Your task to perform on an android device: See recent photos Image 0: 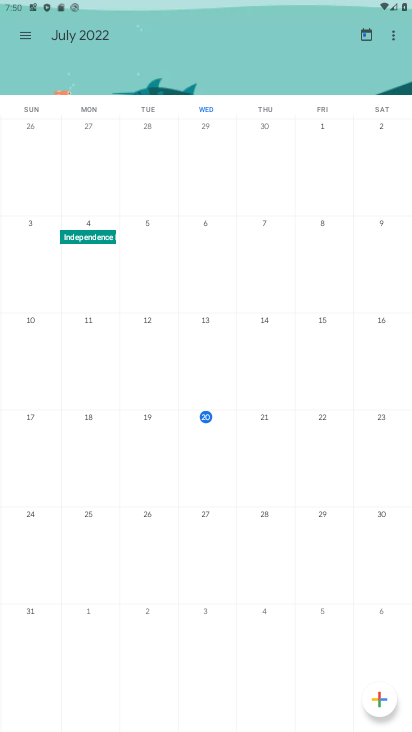
Step 0: press home button
Your task to perform on an android device: See recent photos Image 1: 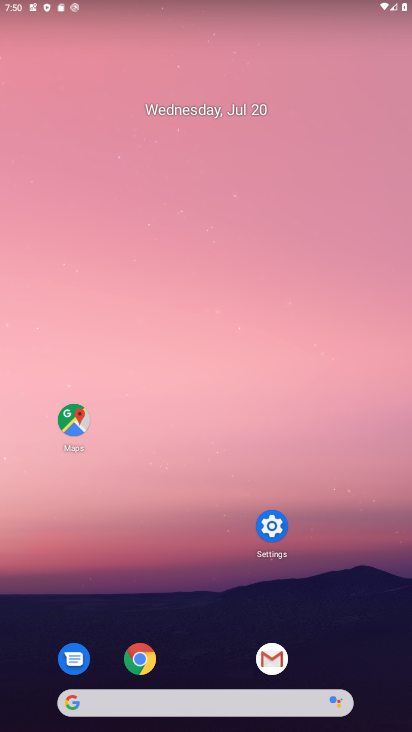
Step 1: drag from (279, 700) to (341, 190)
Your task to perform on an android device: See recent photos Image 2: 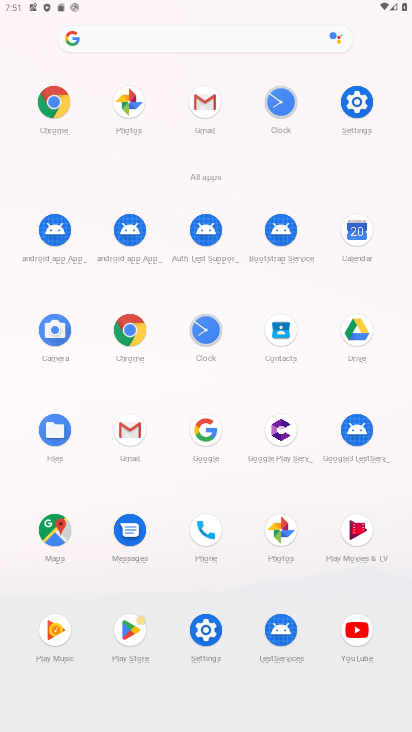
Step 2: click (280, 541)
Your task to perform on an android device: See recent photos Image 3: 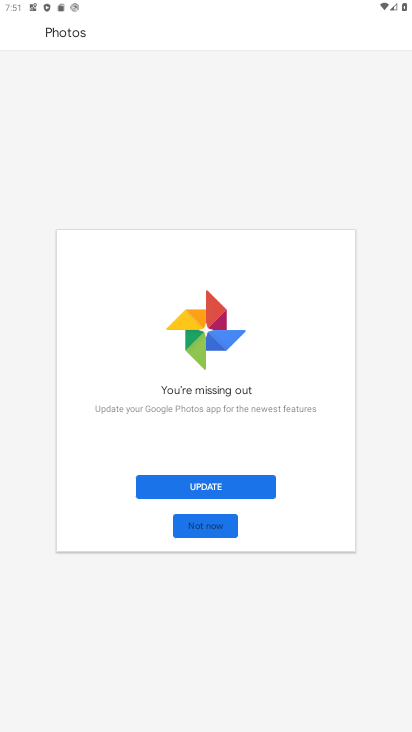
Step 3: click (200, 485)
Your task to perform on an android device: See recent photos Image 4: 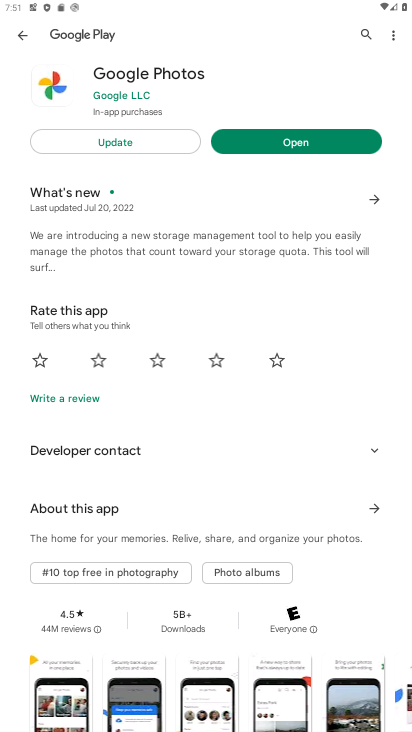
Step 4: click (129, 139)
Your task to perform on an android device: See recent photos Image 5: 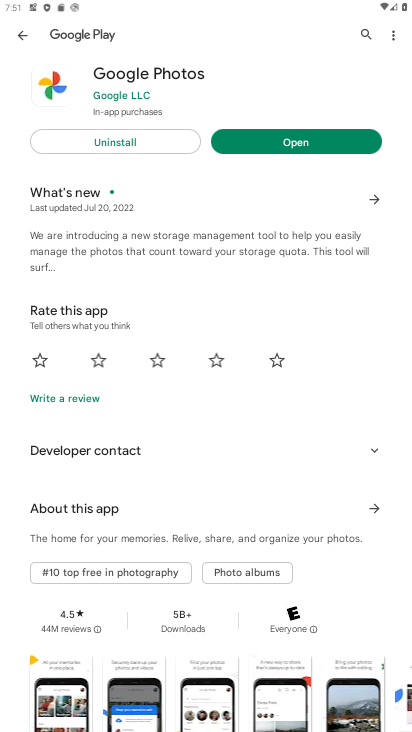
Step 5: click (254, 150)
Your task to perform on an android device: See recent photos Image 6: 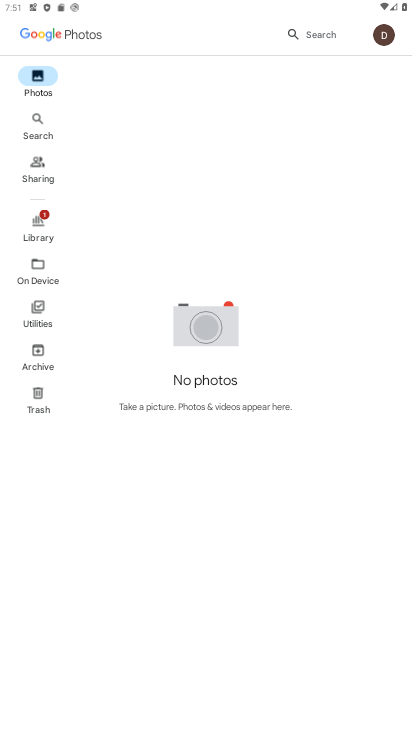
Step 6: task complete